Your task to perform on an android device: turn vacation reply on in the gmail app Image 0: 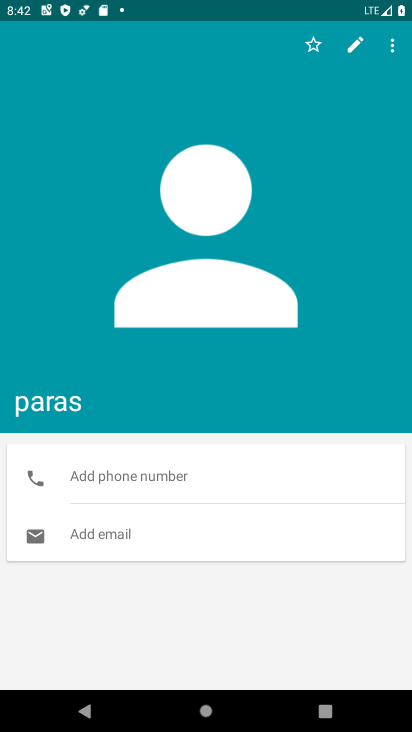
Step 0: press home button
Your task to perform on an android device: turn vacation reply on in the gmail app Image 1: 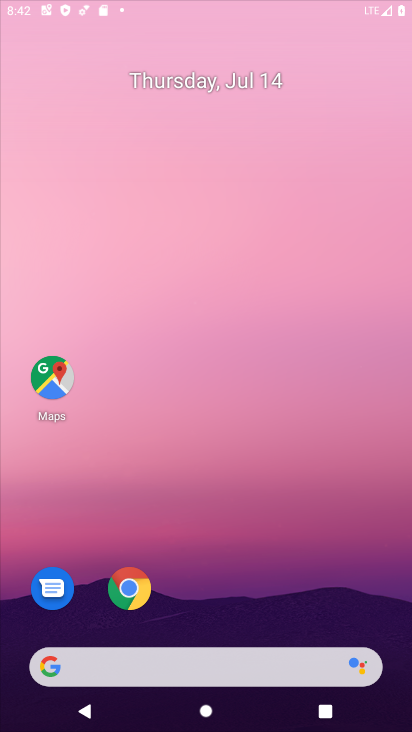
Step 1: drag from (393, 660) to (337, 128)
Your task to perform on an android device: turn vacation reply on in the gmail app Image 2: 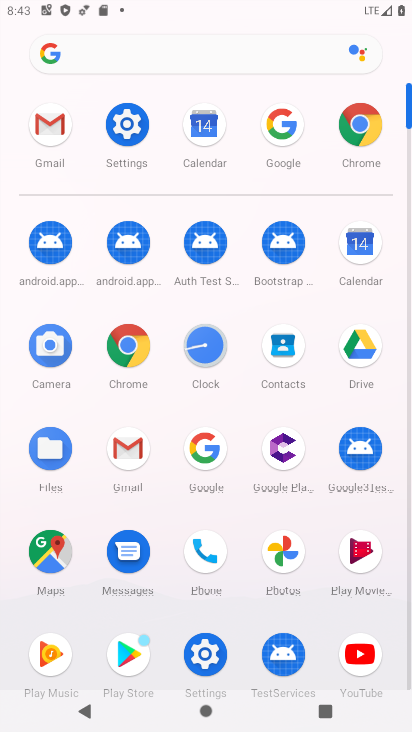
Step 2: click (127, 450)
Your task to perform on an android device: turn vacation reply on in the gmail app Image 3: 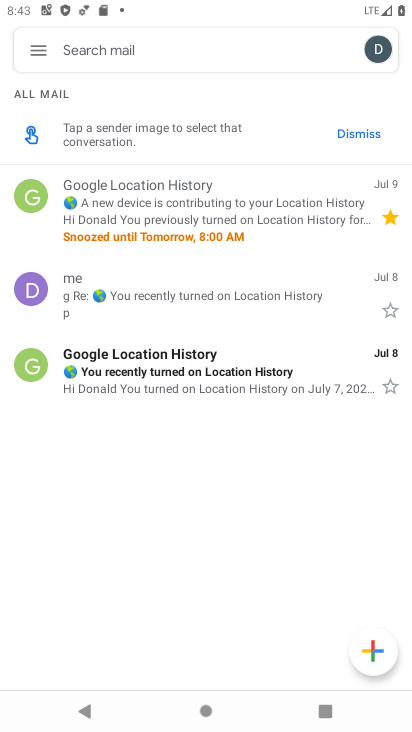
Step 3: click (34, 40)
Your task to perform on an android device: turn vacation reply on in the gmail app Image 4: 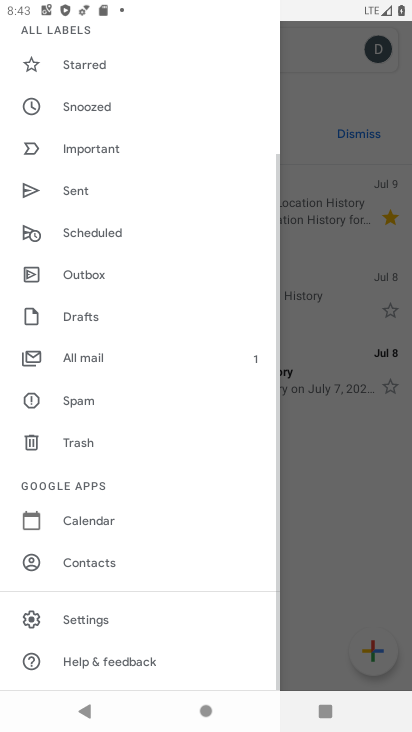
Step 4: click (109, 604)
Your task to perform on an android device: turn vacation reply on in the gmail app Image 5: 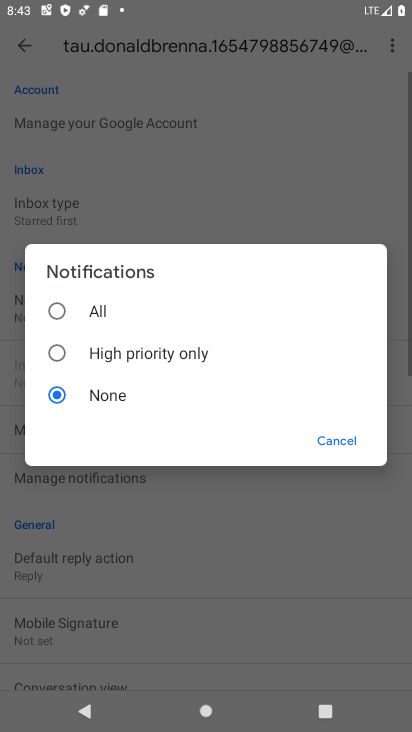
Step 5: click (329, 443)
Your task to perform on an android device: turn vacation reply on in the gmail app Image 6: 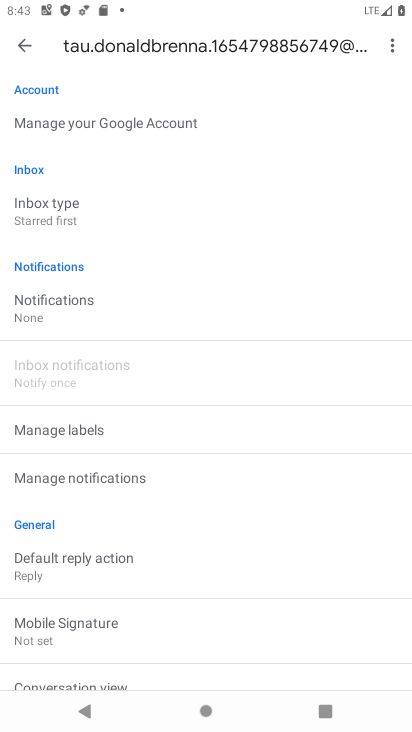
Step 6: drag from (139, 616) to (168, 67)
Your task to perform on an android device: turn vacation reply on in the gmail app Image 7: 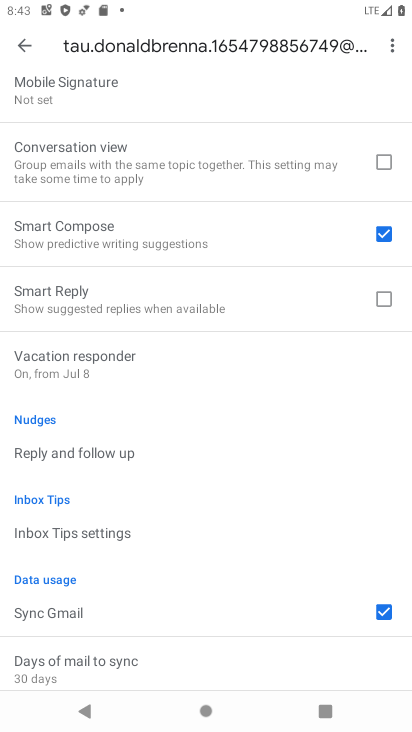
Step 7: drag from (120, 670) to (176, 245)
Your task to perform on an android device: turn vacation reply on in the gmail app Image 8: 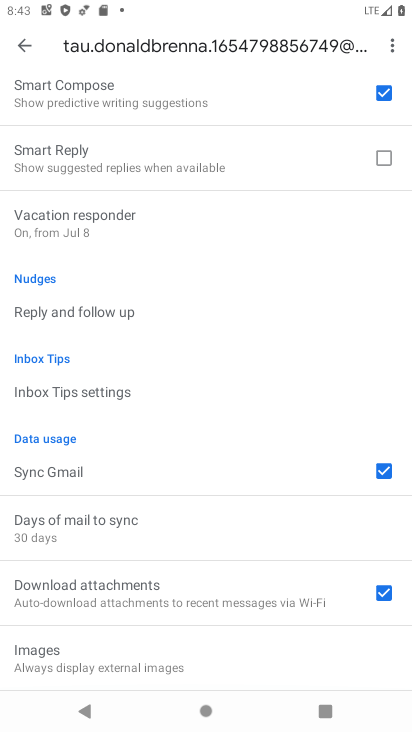
Step 8: click (126, 207)
Your task to perform on an android device: turn vacation reply on in the gmail app Image 9: 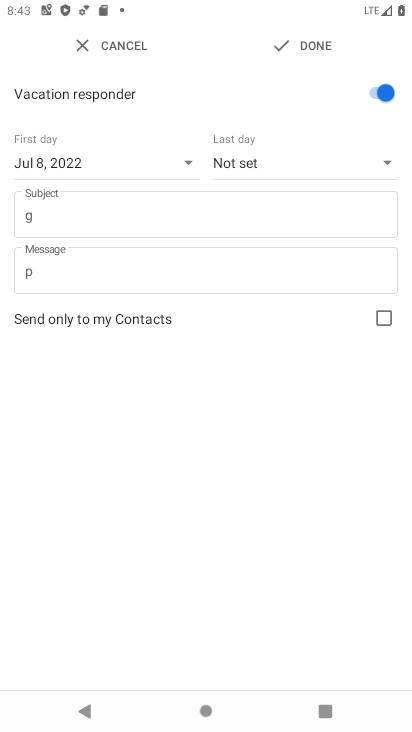
Step 9: task complete